Your task to perform on an android device: Open the web browser Image 0: 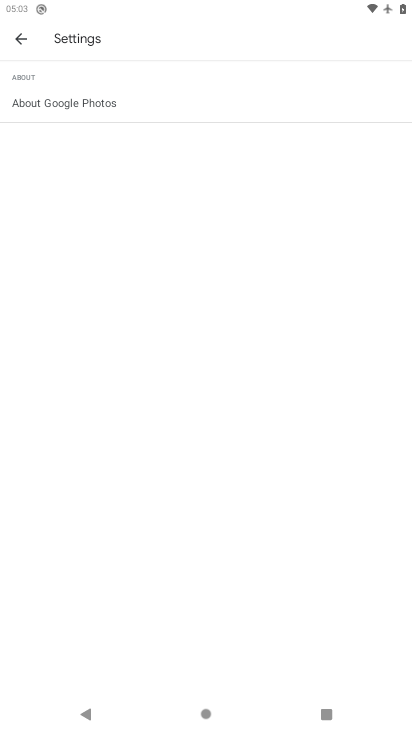
Step 0: press home button
Your task to perform on an android device: Open the web browser Image 1: 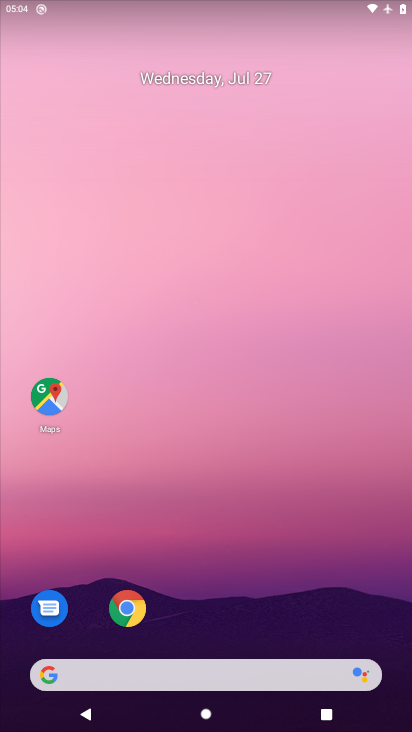
Step 1: click (50, 677)
Your task to perform on an android device: Open the web browser Image 2: 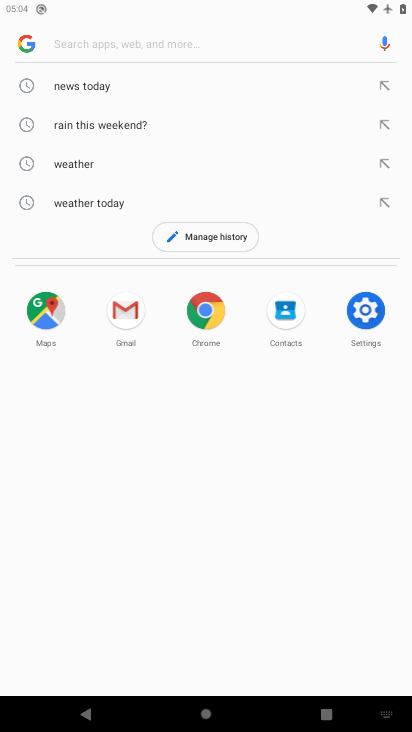
Step 2: task complete